Your task to perform on an android device: Open the stopwatch Image 0: 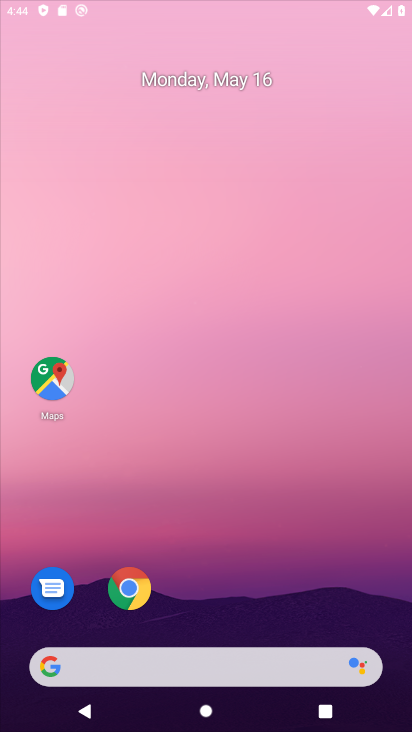
Step 0: click (148, 240)
Your task to perform on an android device: Open the stopwatch Image 1: 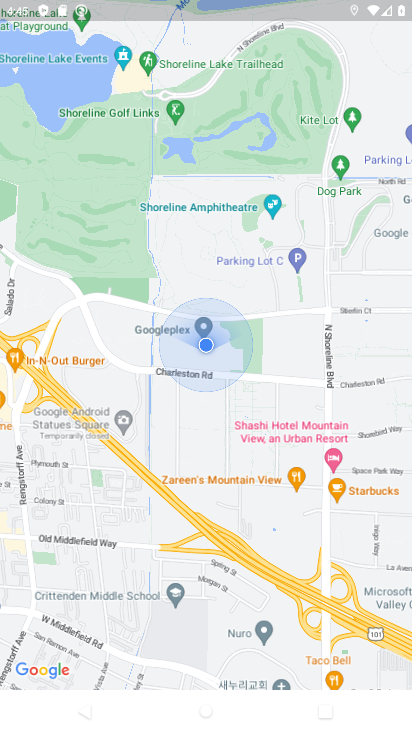
Step 1: press home button
Your task to perform on an android device: Open the stopwatch Image 2: 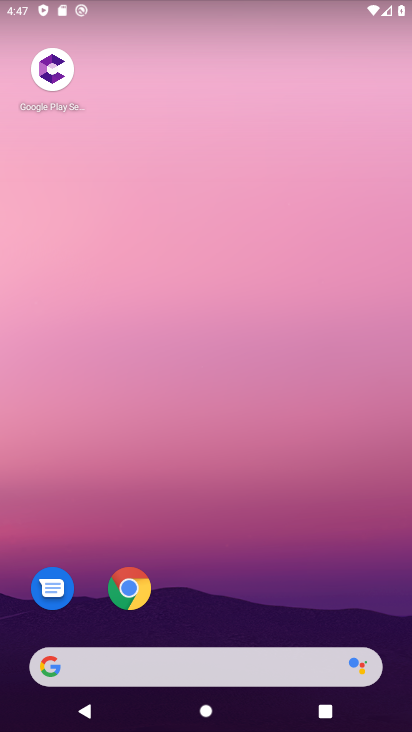
Step 2: drag from (294, 610) to (276, 205)
Your task to perform on an android device: Open the stopwatch Image 3: 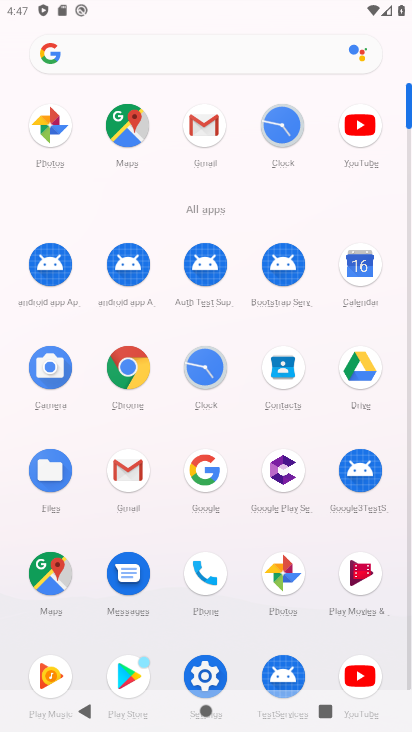
Step 3: click (285, 124)
Your task to perform on an android device: Open the stopwatch Image 4: 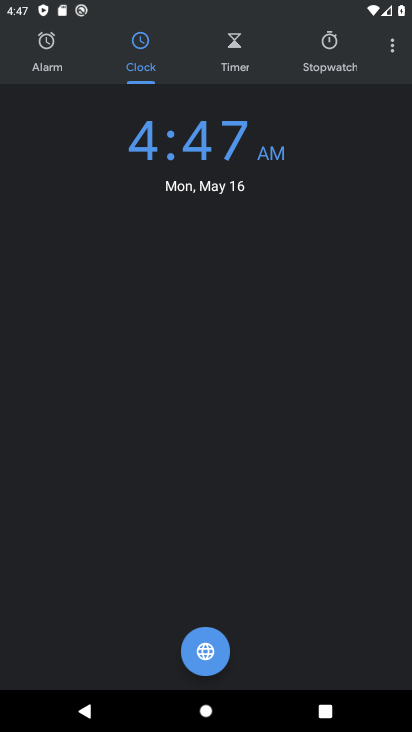
Step 4: click (318, 64)
Your task to perform on an android device: Open the stopwatch Image 5: 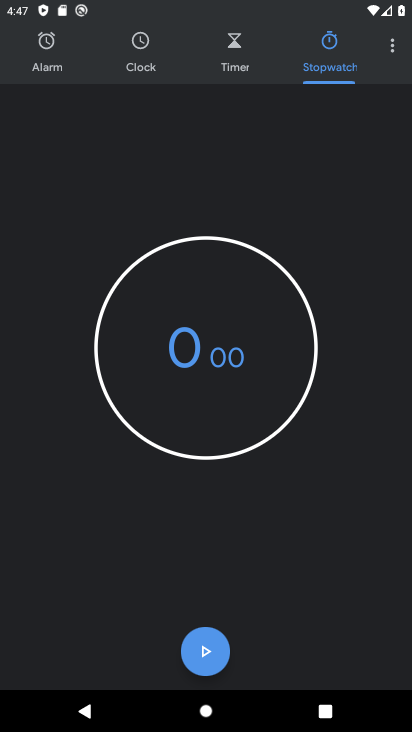
Step 5: click (218, 653)
Your task to perform on an android device: Open the stopwatch Image 6: 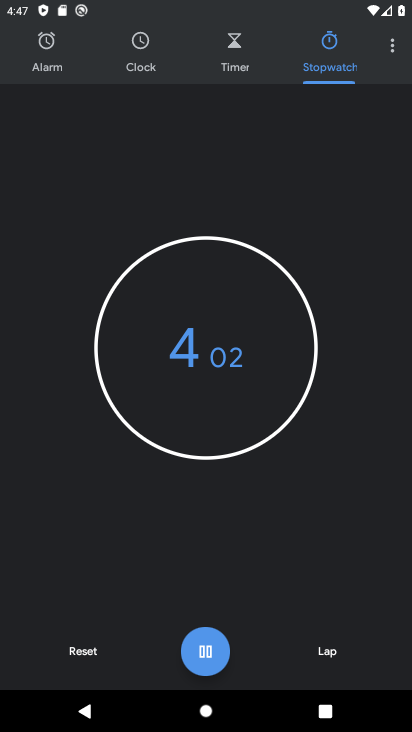
Step 6: task complete